Your task to perform on an android device: turn on wifi Image 0: 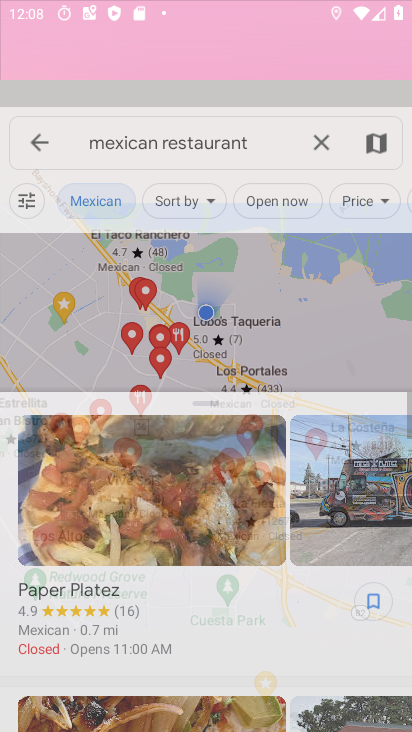
Step 0: press back button
Your task to perform on an android device: turn on wifi Image 1: 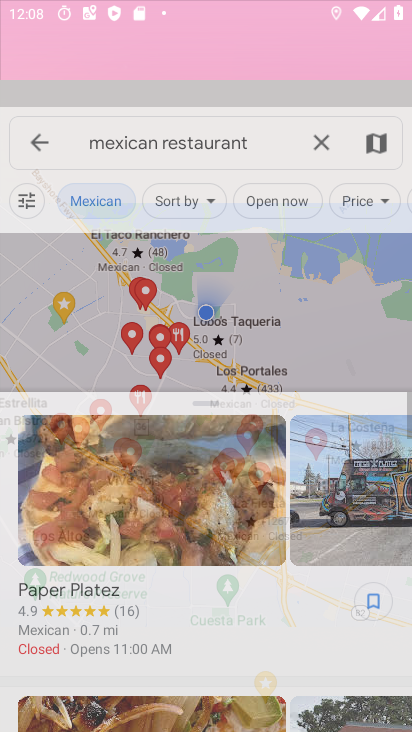
Step 1: press home button
Your task to perform on an android device: turn on wifi Image 2: 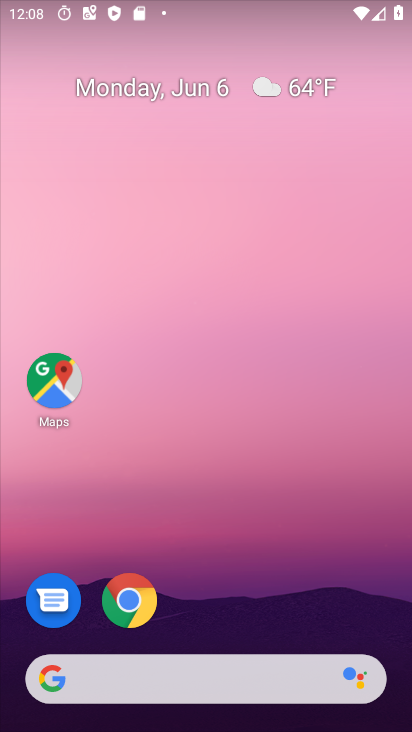
Step 2: drag from (241, 633) to (237, 182)
Your task to perform on an android device: turn on wifi Image 3: 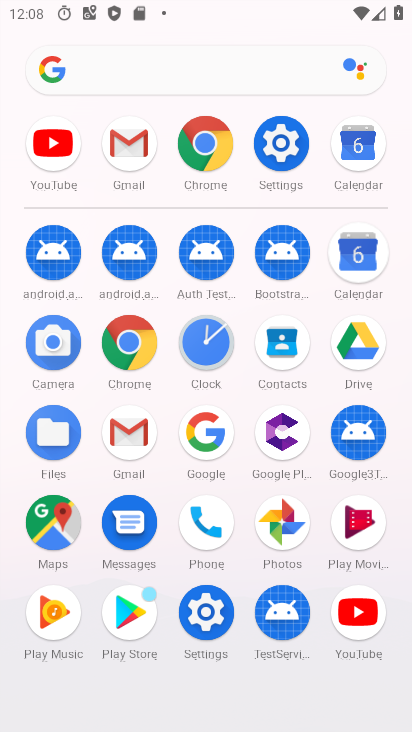
Step 3: click (301, 152)
Your task to perform on an android device: turn on wifi Image 4: 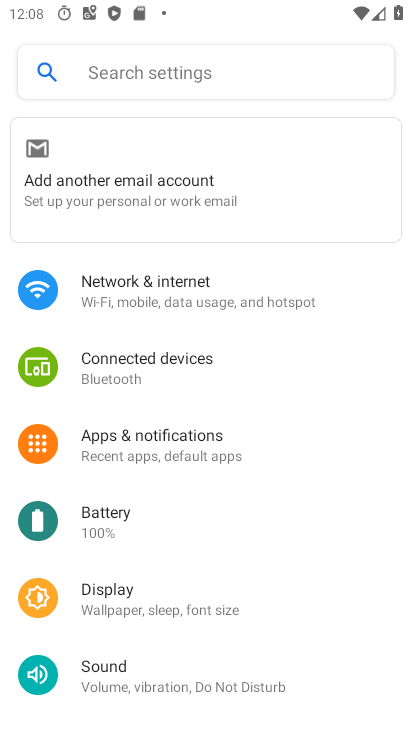
Step 4: click (146, 298)
Your task to perform on an android device: turn on wifi Image 5: 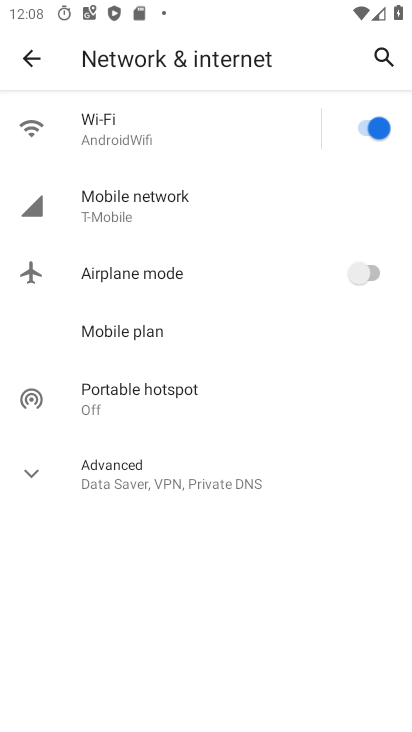
Step 5: task complete